Your task to perform on an android device: read, delete, or share a saved page in the chrome app Image 0: 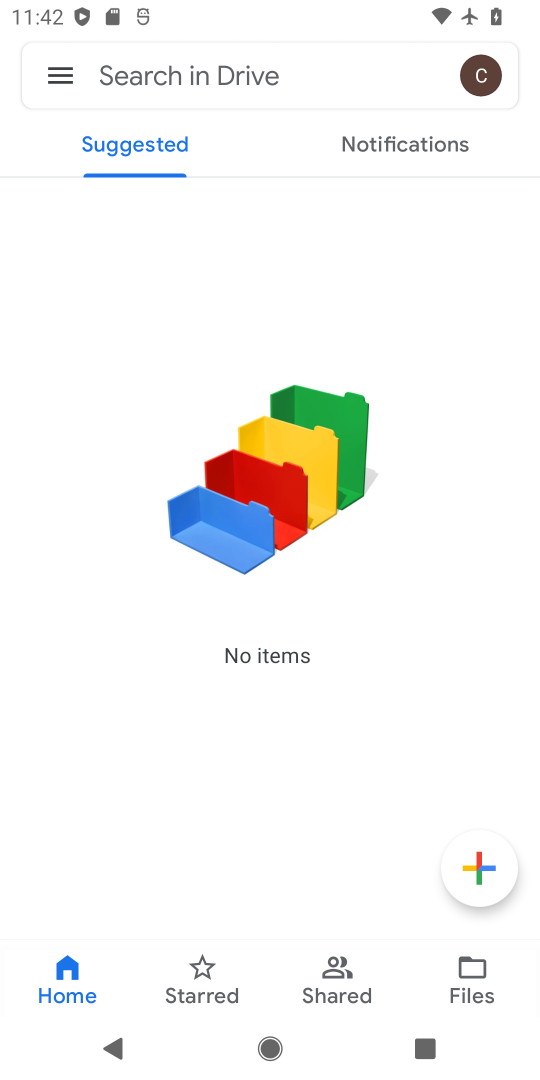
Step 0: press home button
Your task to perform on an android device: read, delete, or share a saved page in the chrome app Image 1: 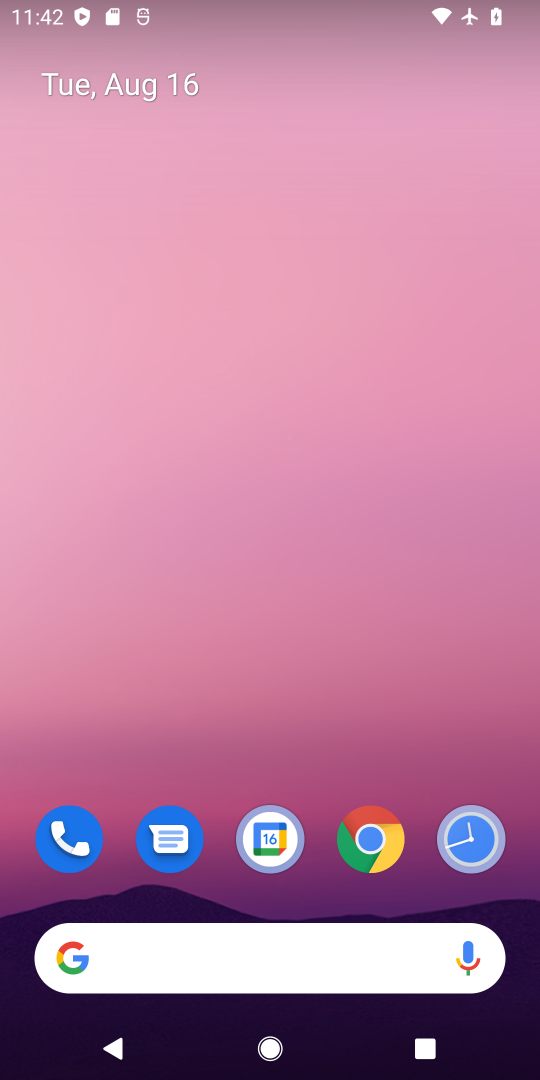
Step 1: click (389, 849)
Your task to perform on an android device: read, delete, or share a saved page in the chrome app Image 2: 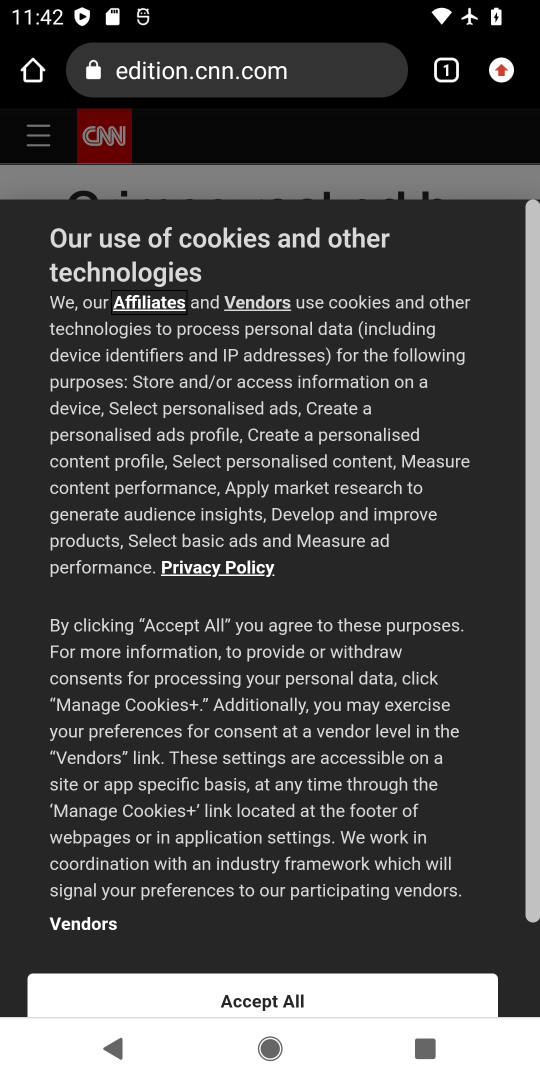
Step 2: click (510, 54)
Your task to perform on an android device: read, delete, or share a saved page in the chrome app Image 3: 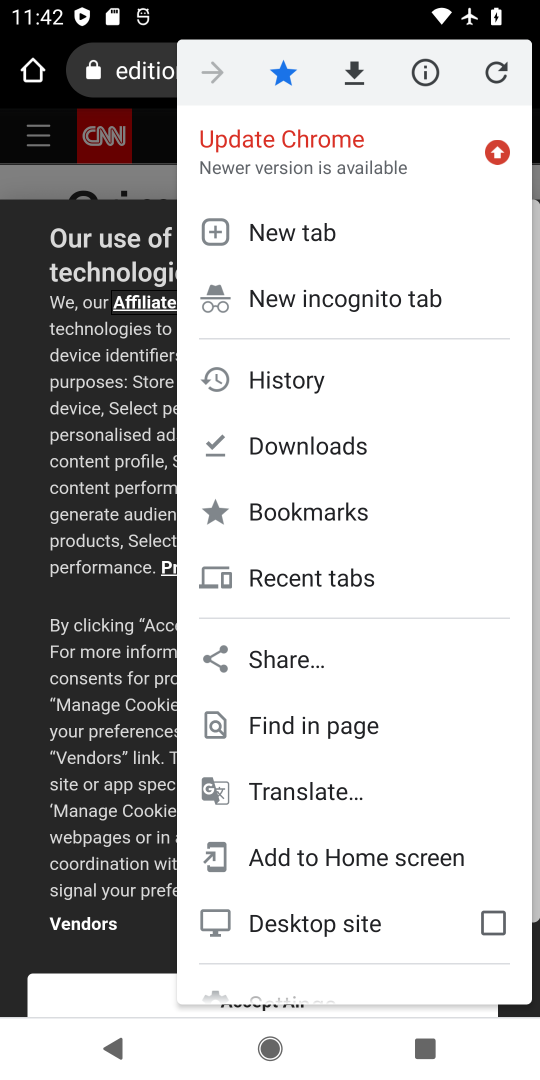
Step 3: click (334, 450)
Your task to perform on an android device: read, delete, or share a saved page in the chrome app Image 4: 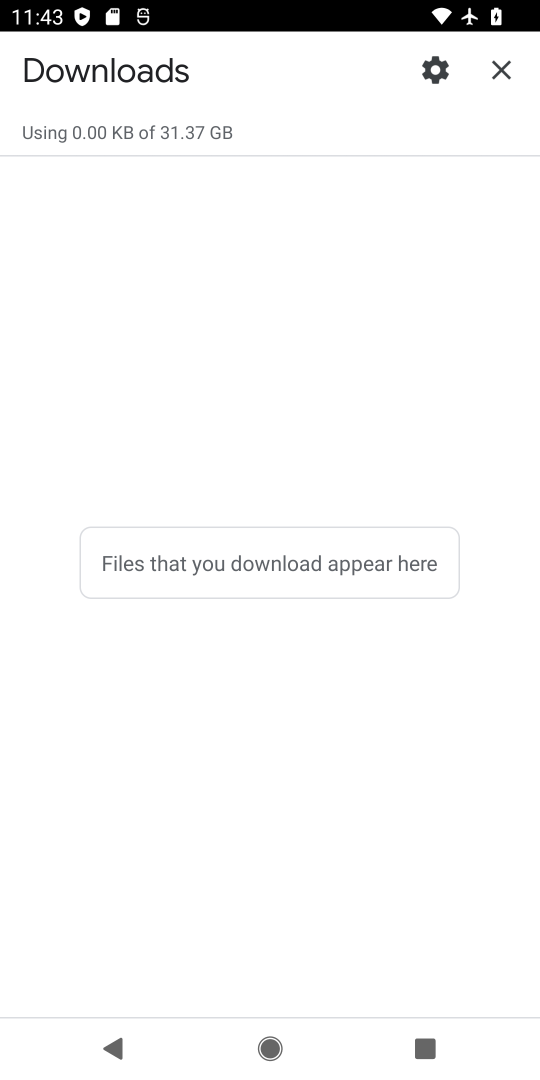
Step 4: task complete